Your task to perform on an android device: turn on priority inbox in the gmail app Image 0: 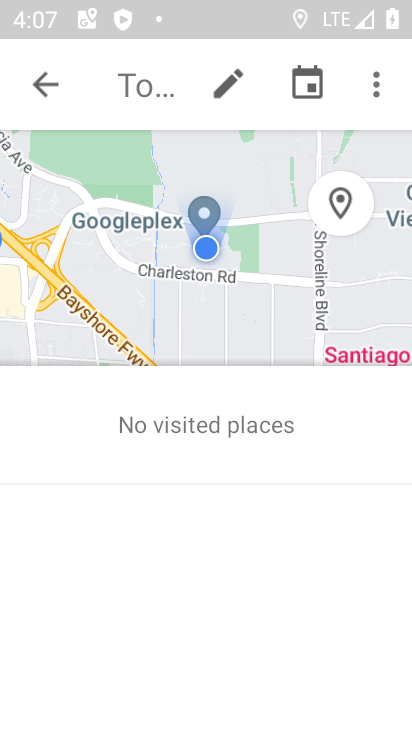
Step 0: press home button
Your task to perform on an android device: turn on priority inbox in the gmail app Image 1: 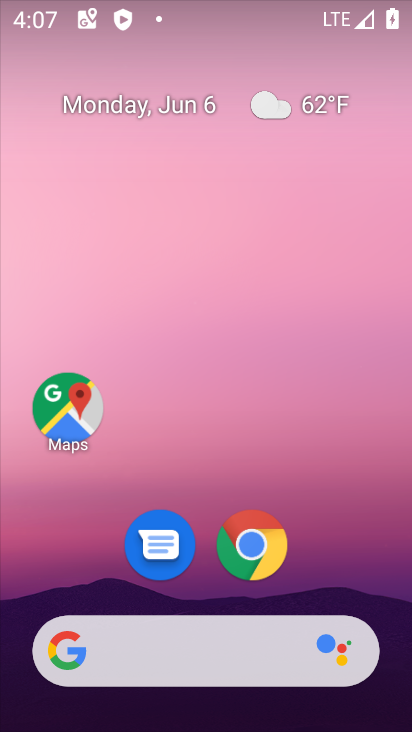
Step 1: drag from (194, 722) to (197, 97)
Your task to perform on an android device: turn on priority inbox in the gmail app Image 2: 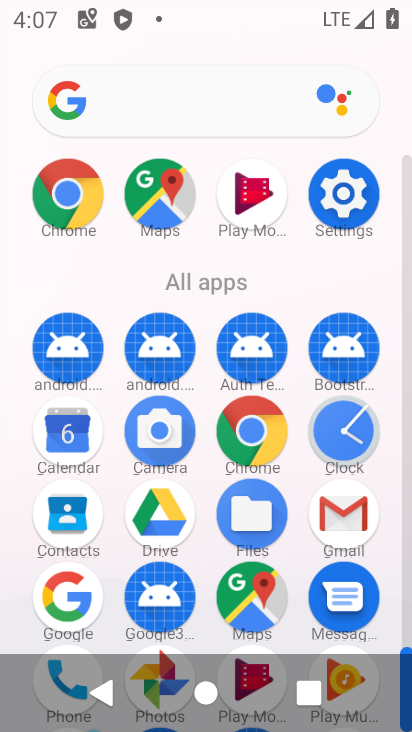
Step 2: click (347, 515)
Your task to perform on an android device: turn on priority inbox in the gmail app Image 3: 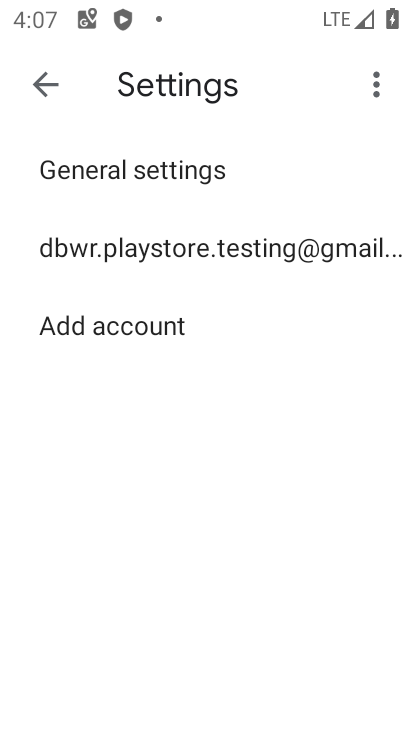
Step 3: click (179, 250)
Your task to perform on an android device: turn on priority inbox in the gmail app Image 4: 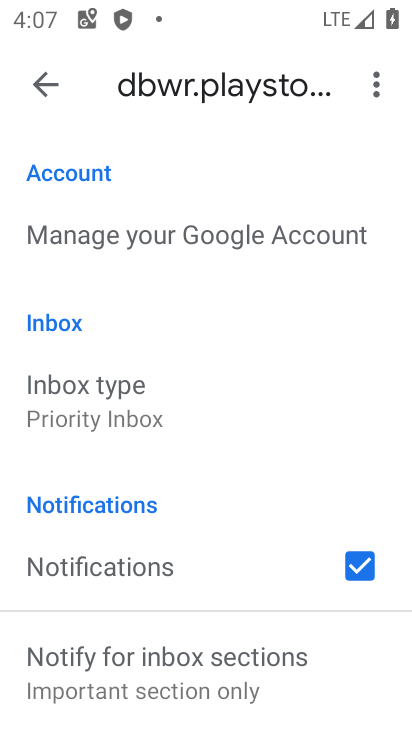
Step 4: task complete